Your task to perform on an android device: Open Chrome and go to the settings page Image 0: 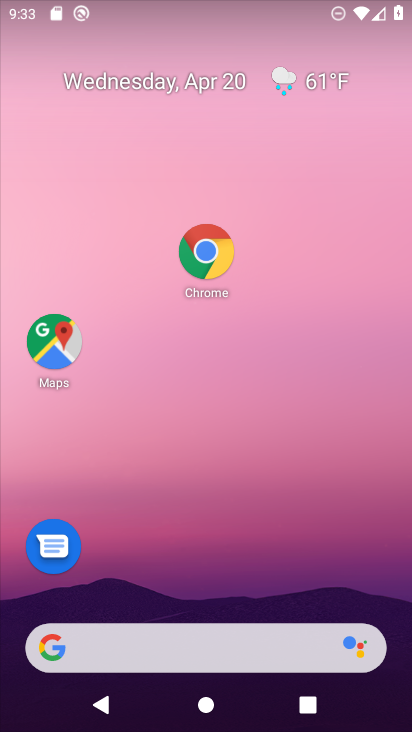
Step 0: drag from (218, 610) to (204, 300)
Your task to perform on an android device: Open Chrome and go to the settings page Image 1: 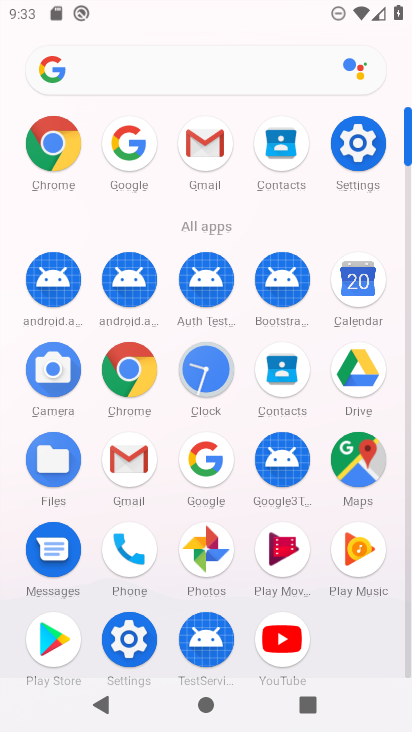
Step 1: click (133, 373)
Your task to perform on an android device: Open Chrome and go to the settings page Image 2: 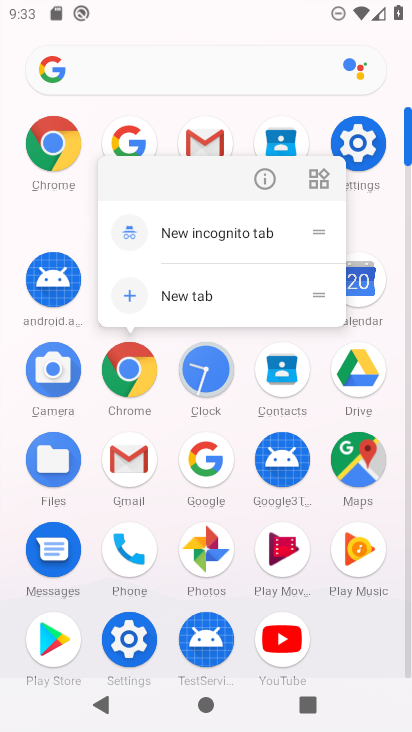
Step 2: click (129, 365)
Your task to perform on an android device: Open Chrome and go to the settings page Image 3: 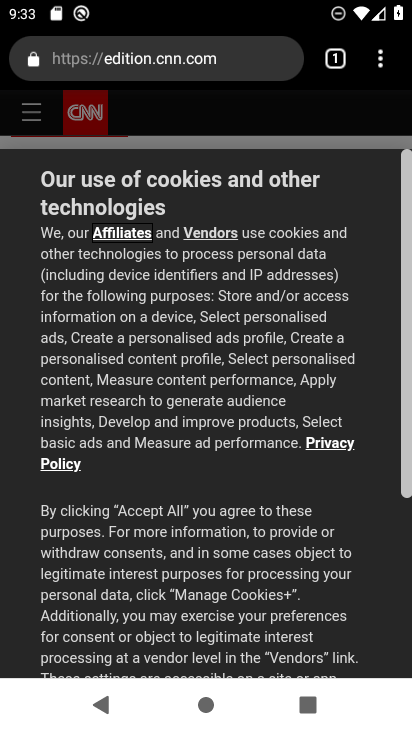
Step 3: click (380, 68)
Your task to perform on an android device: Open Chrome and go to the settings page Image 4: 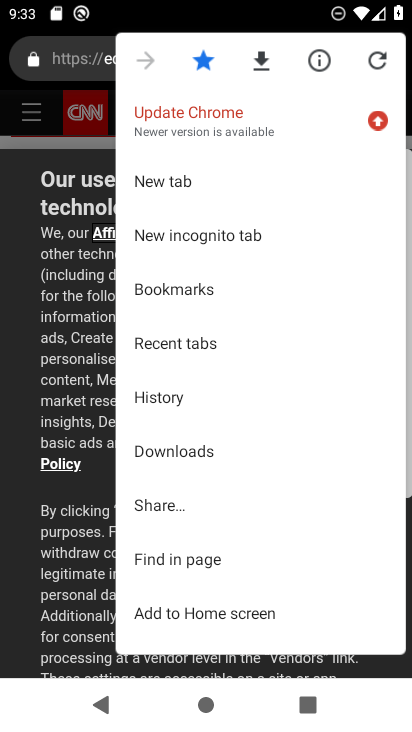
Step 4: drag from (200, 628) to (222, 323)
Your task to perform on an android device: Open Chrome and go to the settings page Image 5: 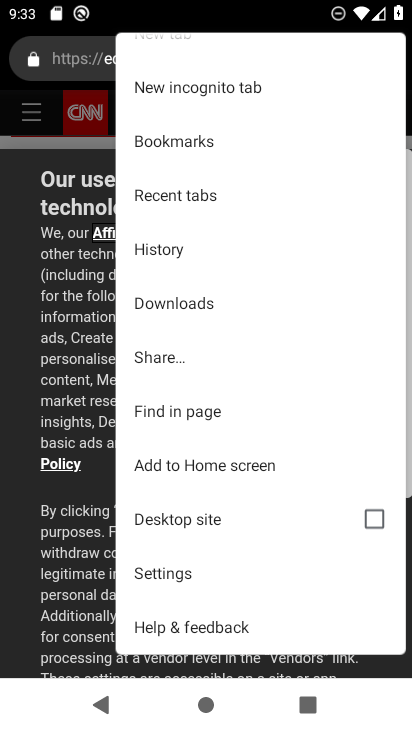
Step 5: click (165, 562)
Your task to perform on an android device: Open Chrome and go to the settings page Image 6: 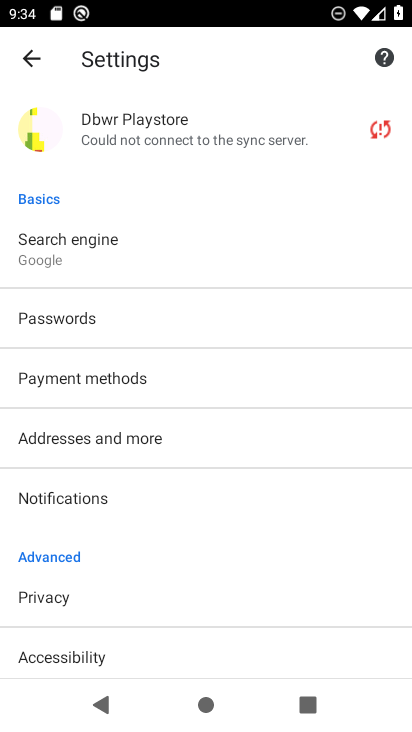
Step 6: drag from (68, 617) to (106, 228)
Your task to perform on an android device: Open Chrome and go to the settings page Image 7: 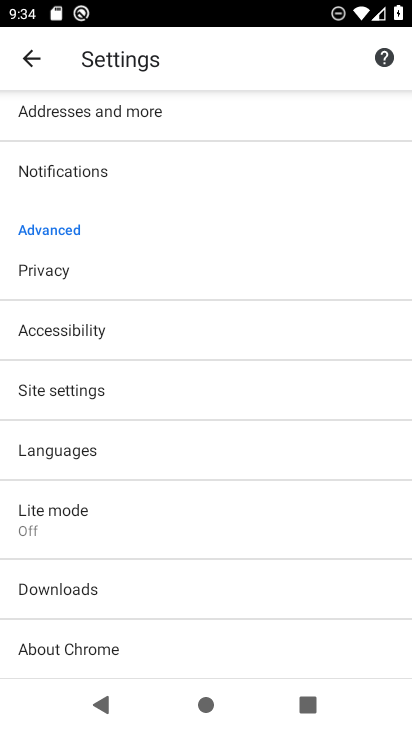
Step 7: drag from (63, 652) to (106, 311)
Your task to perform on an android device: Open Chrome and go to the settings page Image 8: 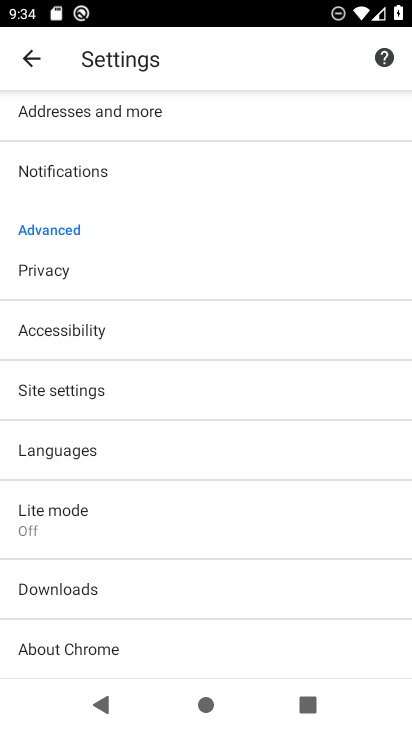
Step 8: click (65, 393)
Your task to perform on an android device: Open Chrome and go to the settings page Image 9: 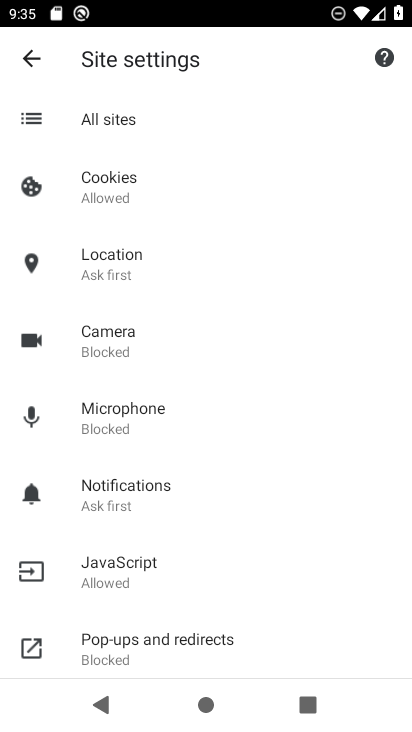
Step 9: task complete